Your task to perform on an android device: turn off translation in the chrome app Image 0: 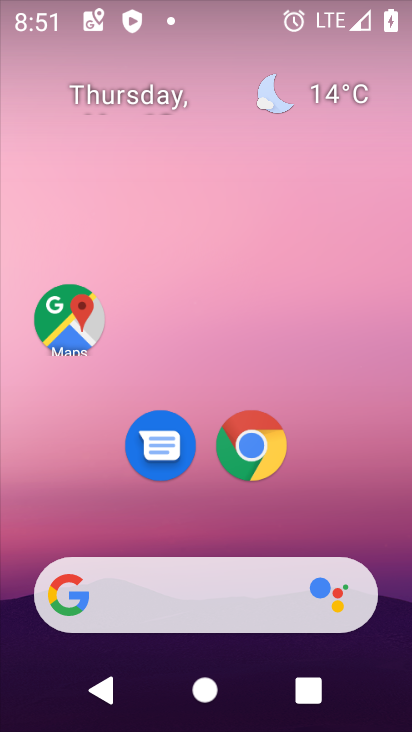
Step 0: click (245, 441)
Your task to perform on an android device: turn off translation in the chrome app Image 1: 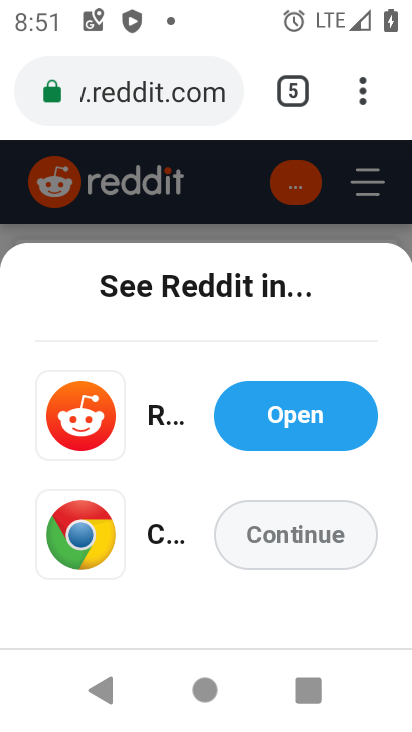
Step 1: click (361, 94)
Your task to perform on an android device: turn off translation in the chrome app Image 2: 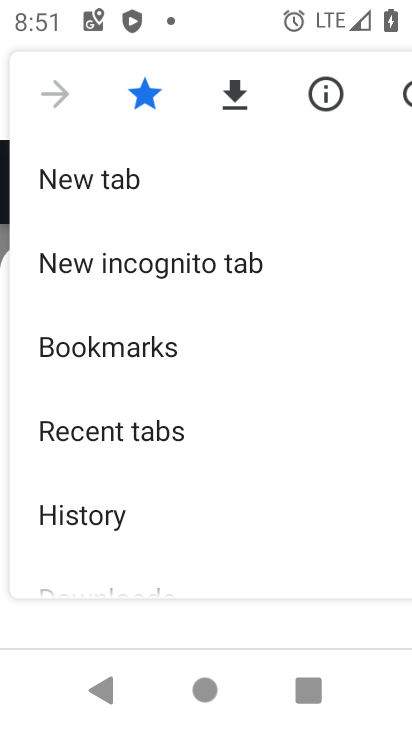
Step 2: drag from (129, 551) to (129, 112)
Your task to perform on an android device: turn off translation in the chrome app Image 3: 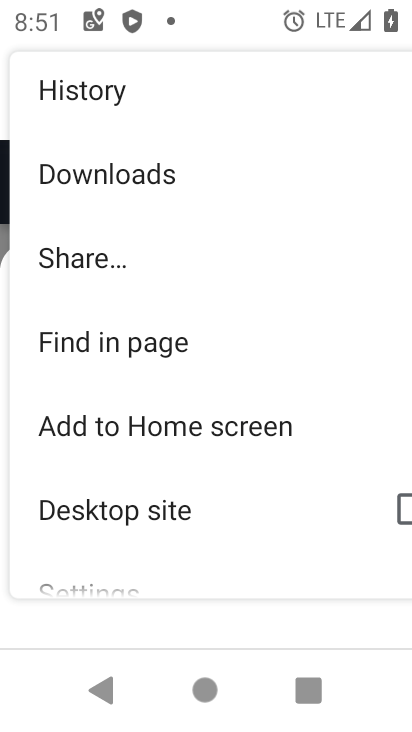
Step 3: drag from (161, 546) to (156, 87)
Your task to perform on an android device: turn off translation in the chrome app Image 4: 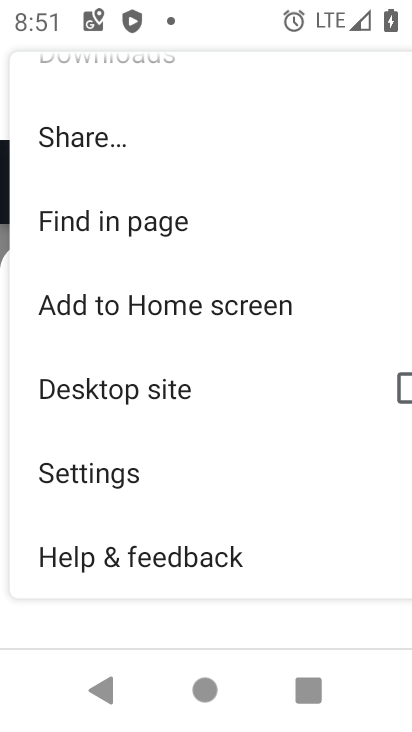
Step 4: click (91, 474)
Your task to perform on an android device: turn off translation in the chrome app Image 5: 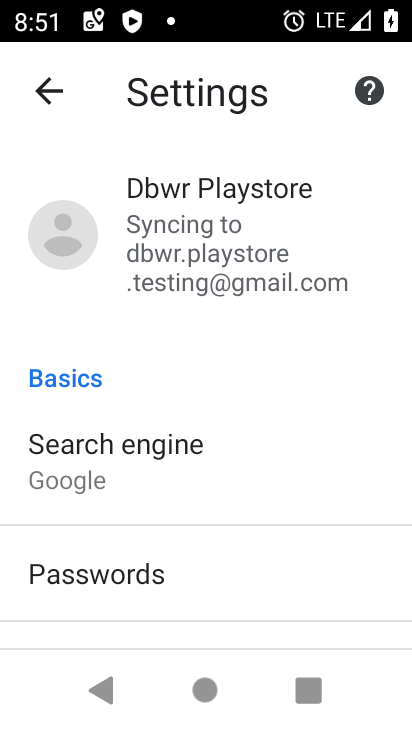
Step 5: drag from (158, 617) to (158, 179)
Your task to perform on an android device: turn off translation in the chrome app Image 6: 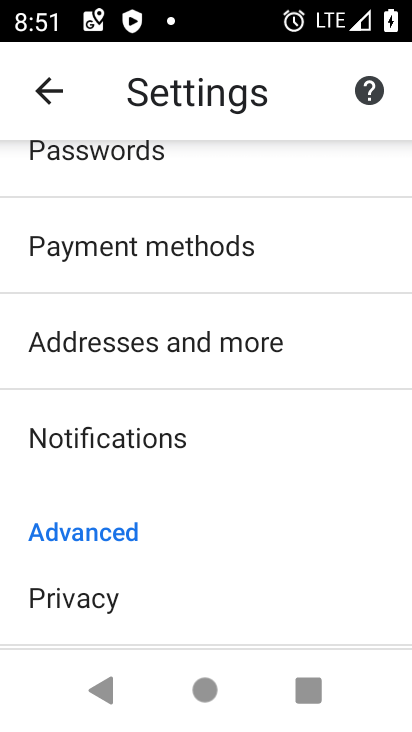
Step 6: drag from (208, 603) to (208, 301)
Your task to perform on an android device: turn off translation in the chrome app Image 7: 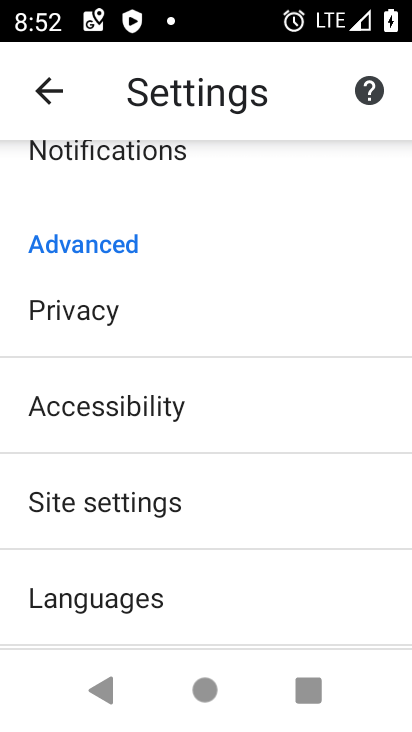
Step 7: click (113, 599)
Your task to perform on an android device: turn off translation in the chrome app Image 8: 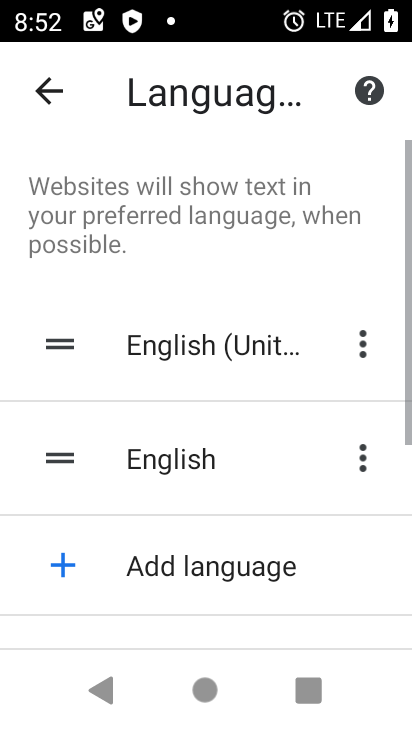
Step 8: drag from (189, 601) to (193, 229)
Your task to perform on an android device: turn off translation in the chrome app Image 9: 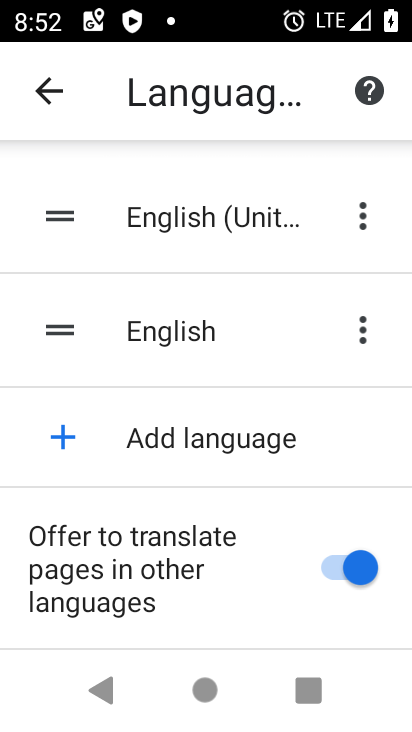
Step 9: click (336, 562)
Your task to perform on an android device: turn off translation in the chrome app Image 10: 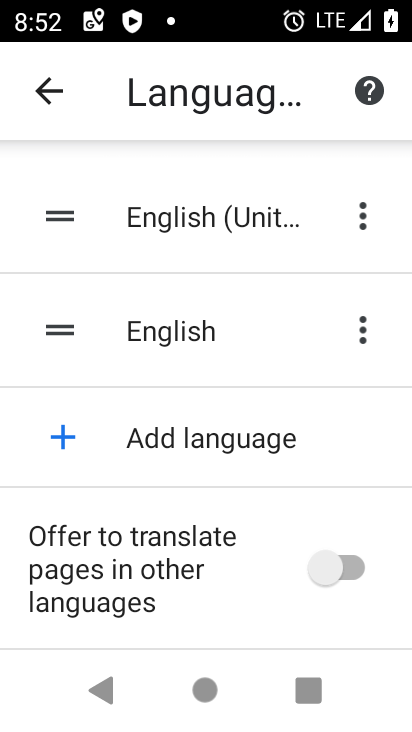
Step 10: task complete